Your task to perform on an android device: check data usage Image 0: 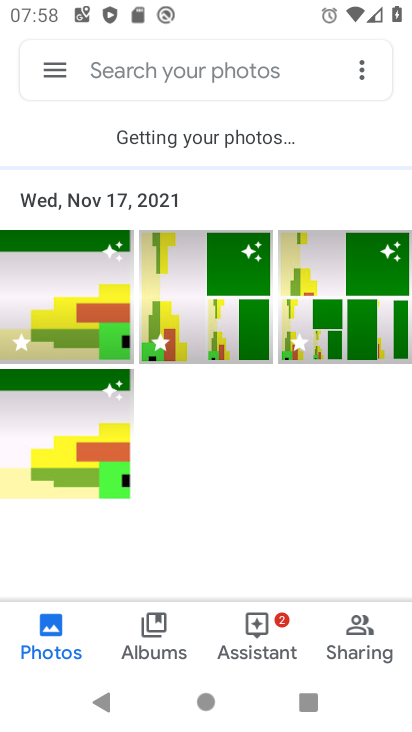
Step 0: press home button
Your task to perform on an android device: check data usage Image 1: 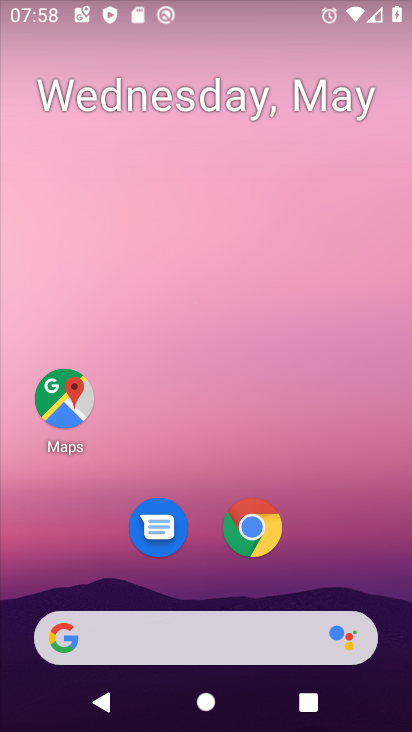
Step 1: drag from (260, 1) to (265, 548)
Your task to perform on an android device: check data usage Image 2: 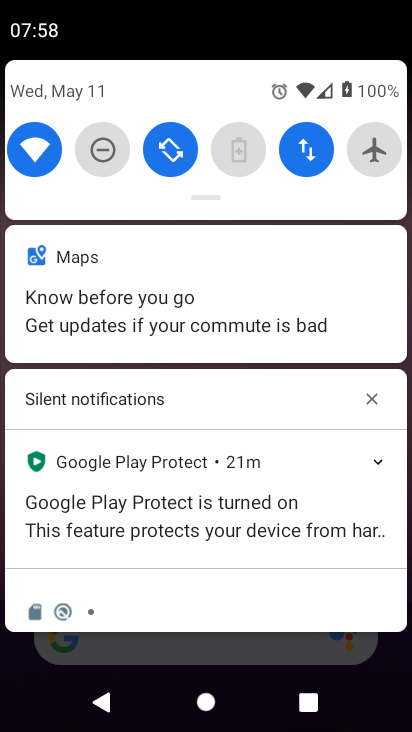
Step 2: click (311, 146)
Your task to perform on an android device: check data usage Image 3: 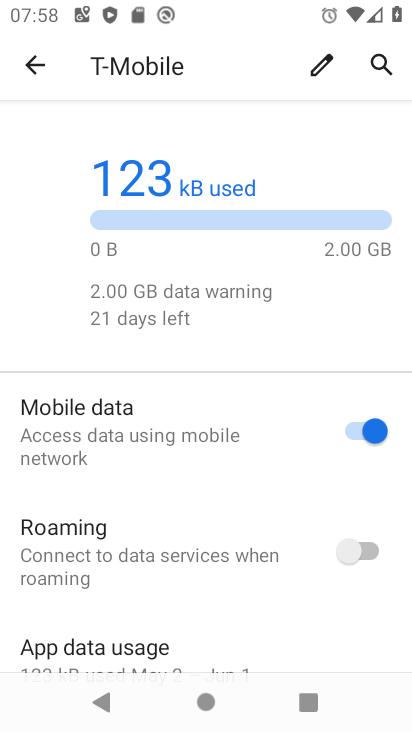
Step 3: task complete